Your task to perform on an android device: What's the weather today? Image 0: 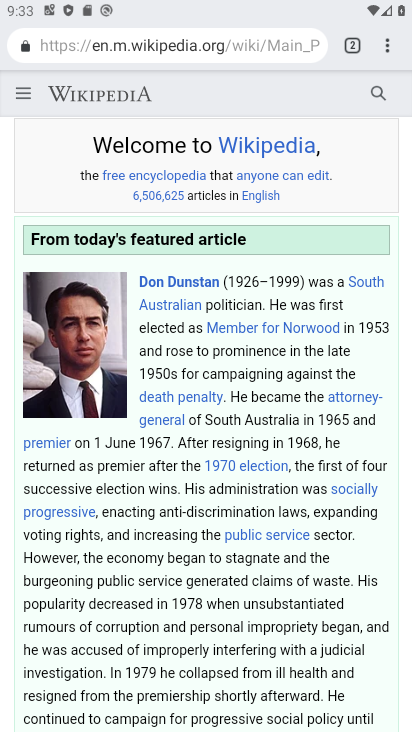
Step 0: press home button
Your task to perform on an android device: What's the weather today? Image 1: 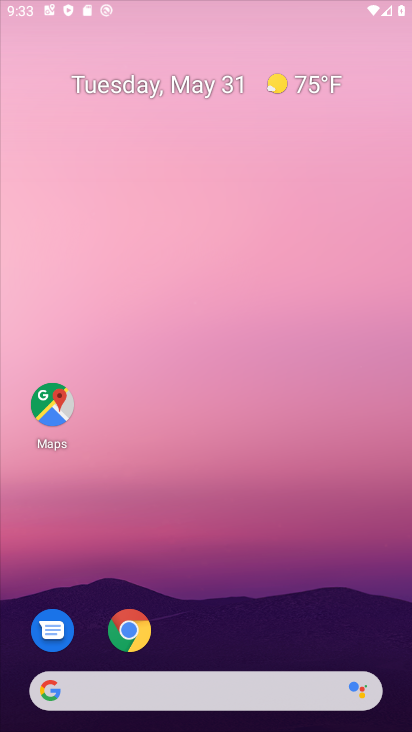
Step 1: drag from (196, 653) to (251, 168)
Your task to perform on an android device: What's the weather today? Image 2: 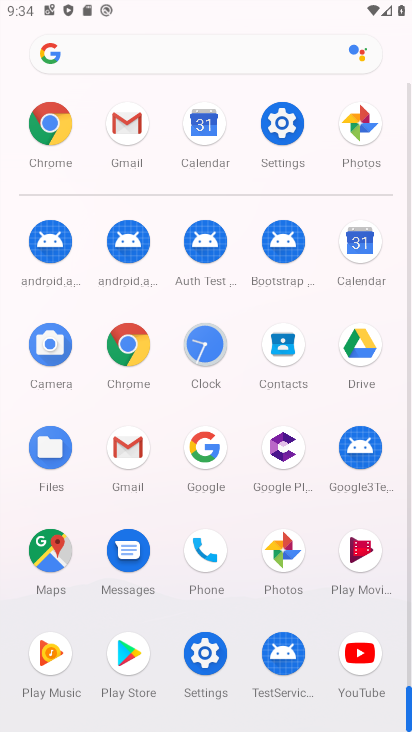
Step 2: click (196, 460)
Your task to perform on an android device: What's the weather today? Image 3: 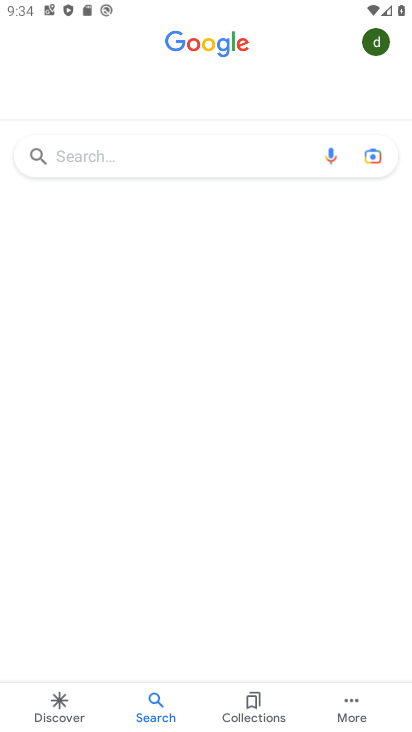
Step 3: click (181, 166)
Your task to perform on an android device: What's the weather today? Image 4: 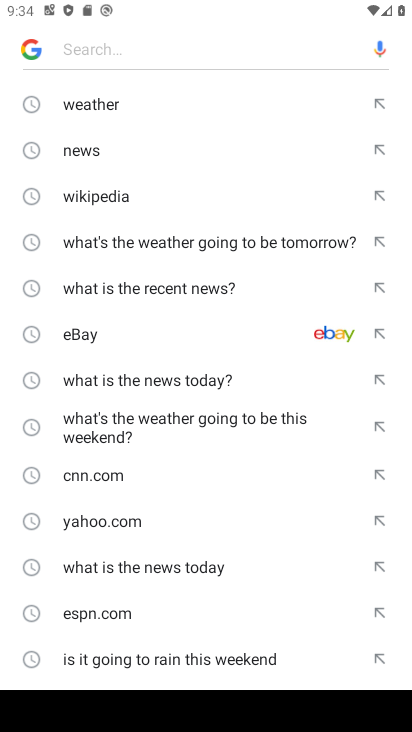
Step 4: click (145, 104)
Your task to perform on an android device: What's the weather today? Image 5: 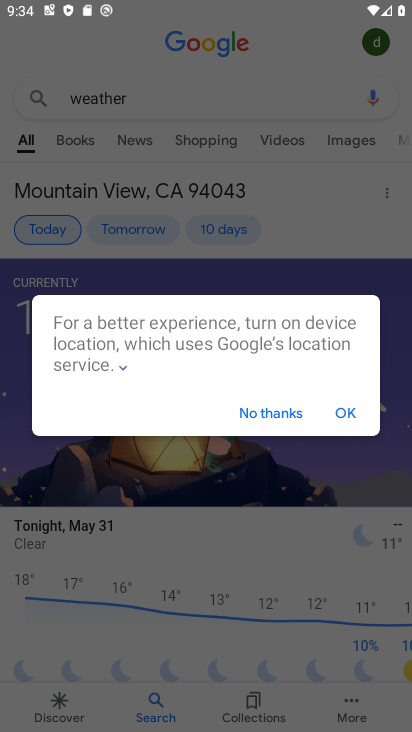
Step 5: click (339, 418)
Your task to perform on an android device: What's the weather today? Image 6: 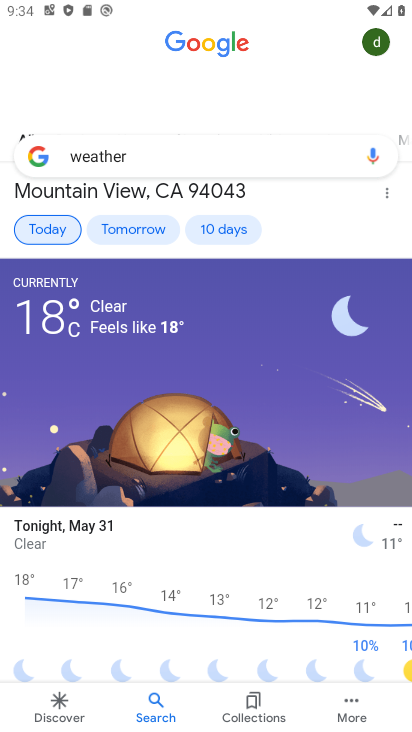
Step 6: task complete